Your task to perform on an android device: find photos in the google photos app Image 0: 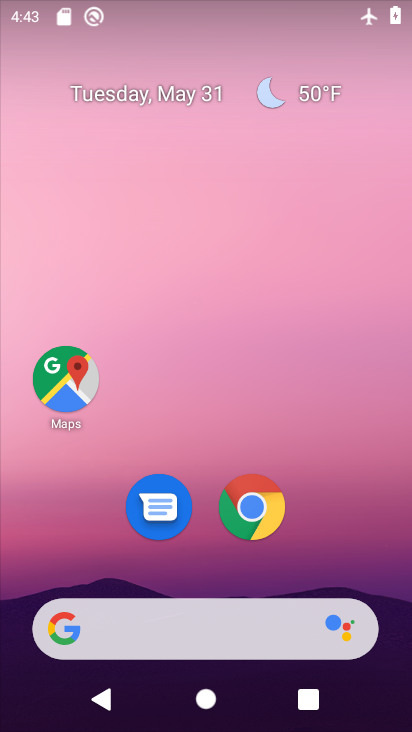
Step 0: drag from (246, 439) to (292, 16)
Your task to perform on an android device: find photos in the google photos app Image 1: 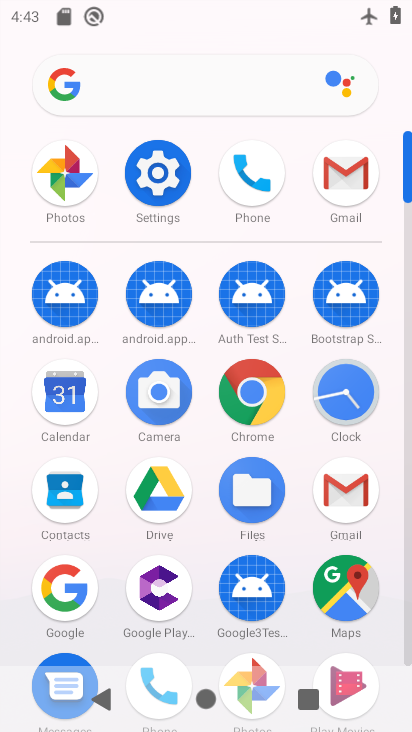
Step 1: click (74, 162)
Your task to perform on an android device: find photos in the google photos app Image 2: 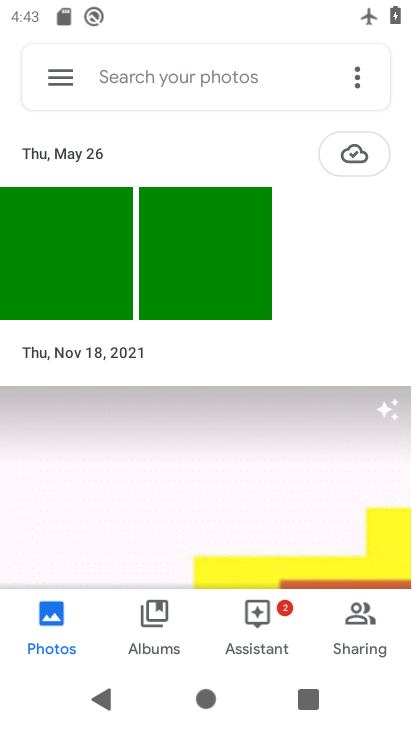
Step 2: click (52, 615)
Your task to perform on an android device: find photos in the google photos app Image 3: 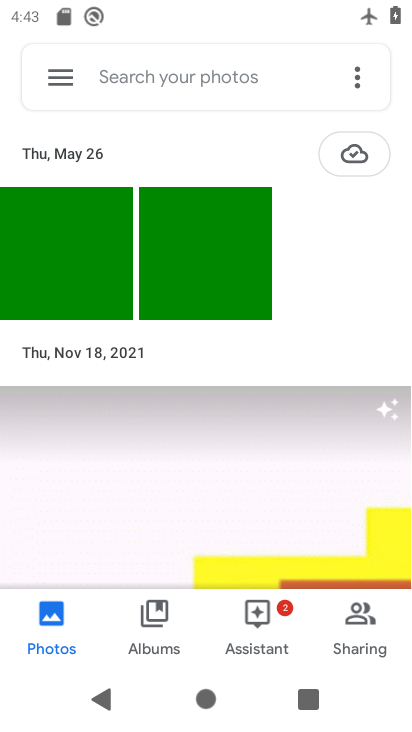
Step 3: task complete